Your task to perform on an android device: turn on sleep mode Image 0: 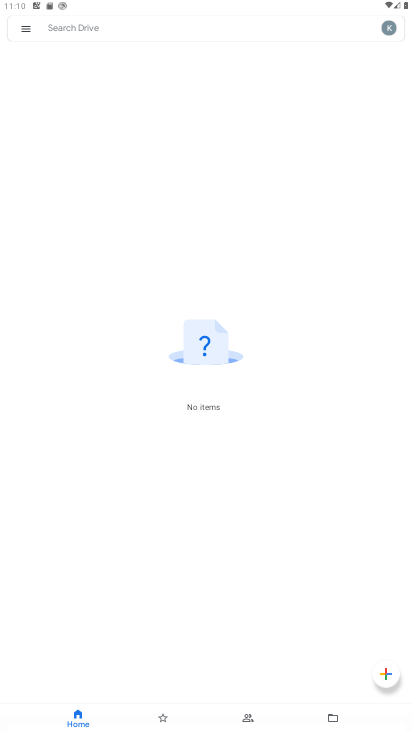
Step 0: press home button
Your task to perform on an android device: turn on sleep mode Image 1: 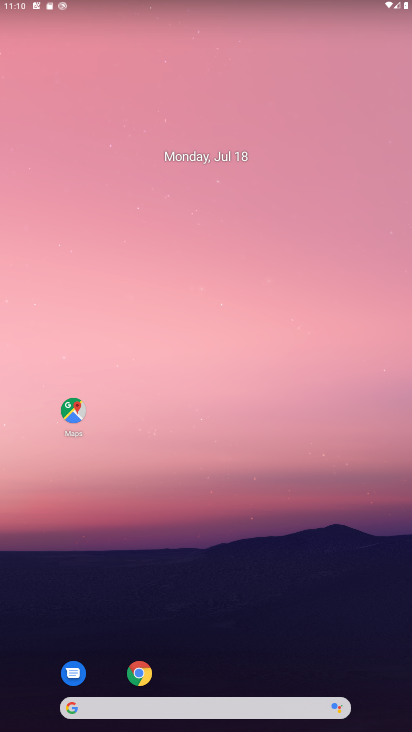
Step 1: drag from (185, 642) to (185, 105)
Your task to perform on an android device: turn on sleep mode Image 2: 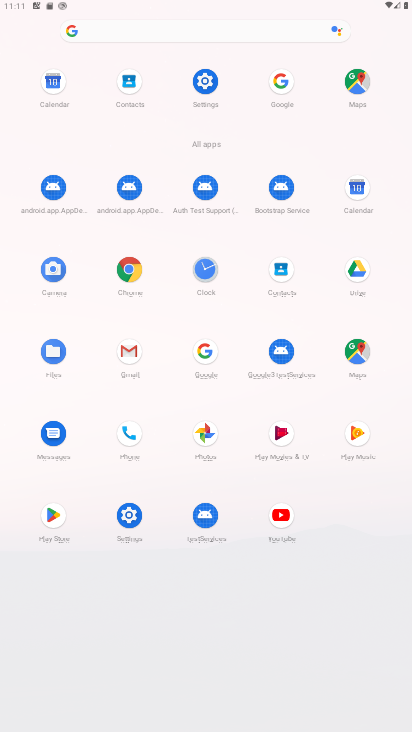
Step 2: click (200, 104)
Your task to perform on an android device: turn on sleep mode Image 3: 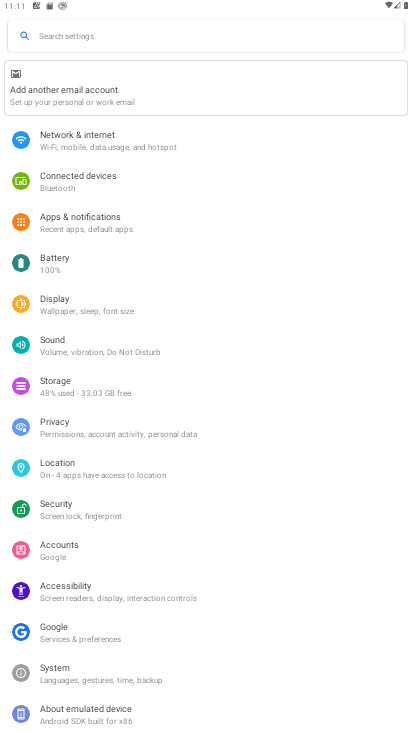
Step 3: click (94, 308)
Your task to perform on an android device: turn on sleep mode Image 4: 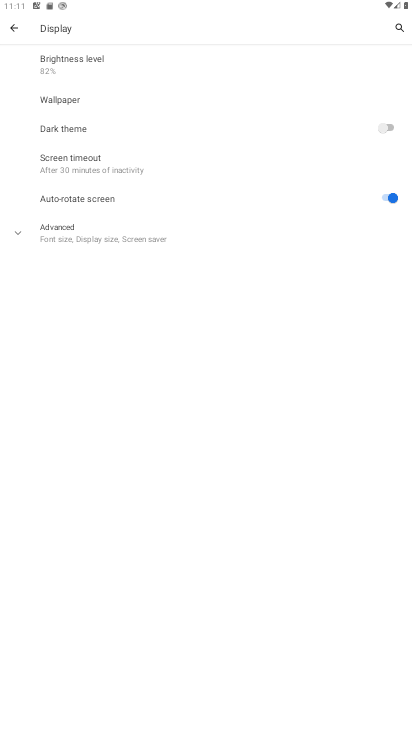
Step 4: click (132, 169)
Your task to perform on an android device: turn on sleep mode Image 5: 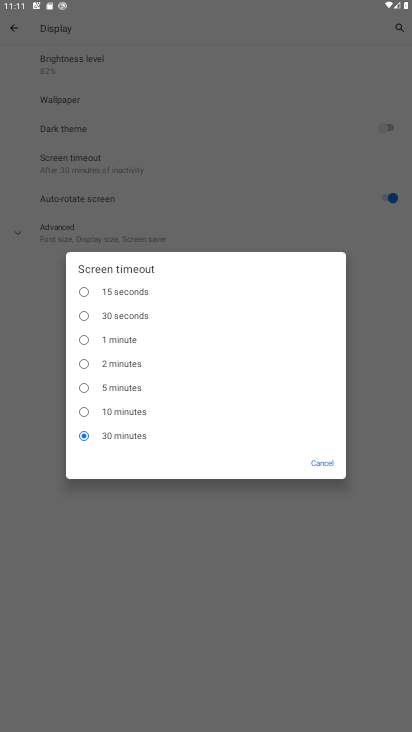
Step 5: click (93, 309)
Your task to perform on an android device: turn on sleep mode Image 6: 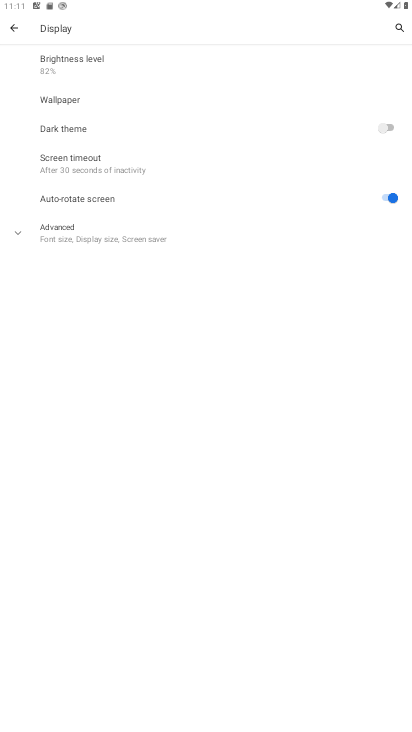
Step 6: task complete